Your task to perform on an android device: Open the web browser Image 0: 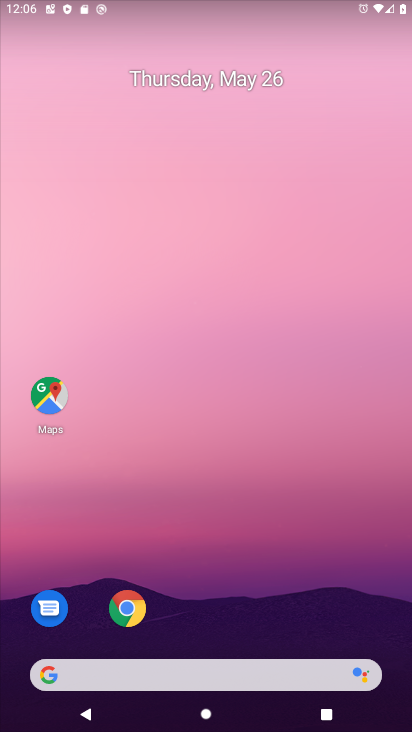
Step 0: click (126, 606)
Your task to perform on an android device: Open the web browser Image 1: 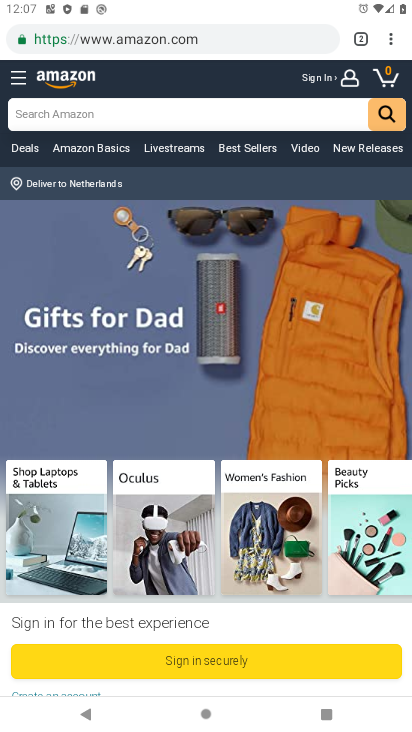
Step 1: task complete